Your task to perform on an android device: check battery use Image 0: 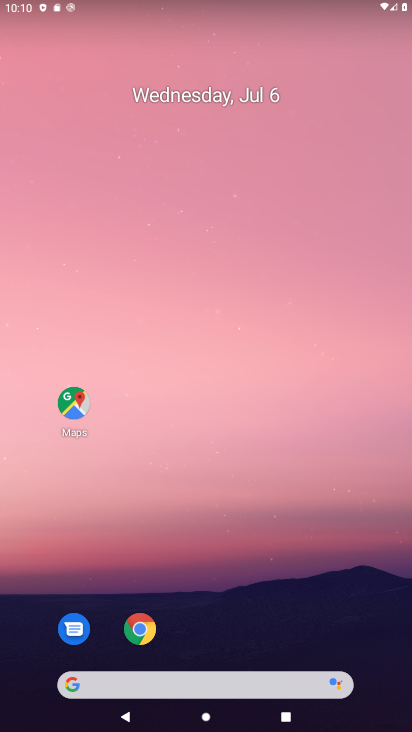
Step 0: drag from (310, 614) to (201, 186)
Your task to perform on an android device: check battery use Image 1: 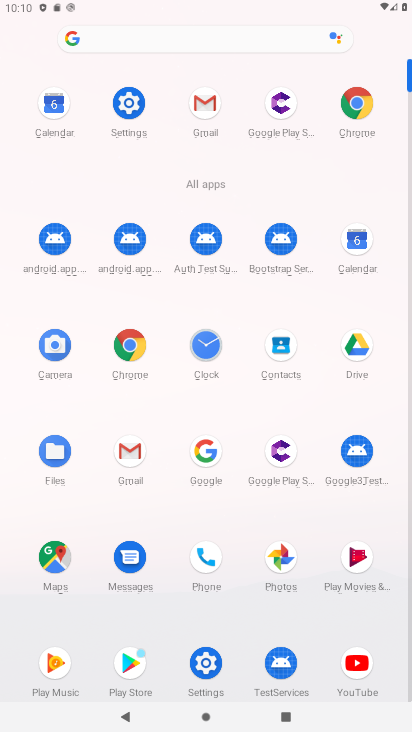
Step 1: click (130, 115)
Your task to perform on an android device: check battery use Image 2: 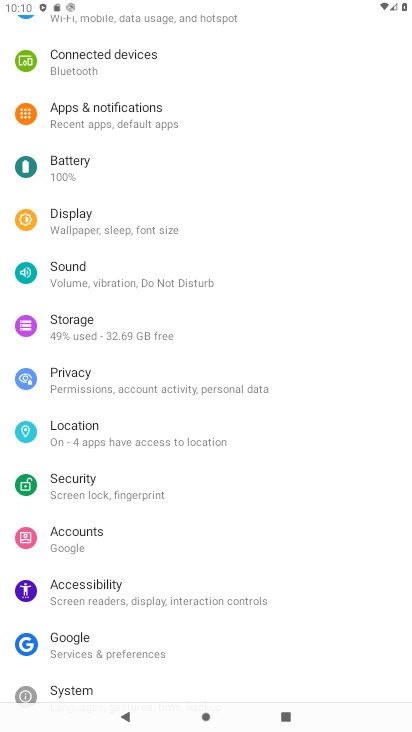
Step 2: click (134, 172)
Your task to perform on an android device: check battery use Image 3: 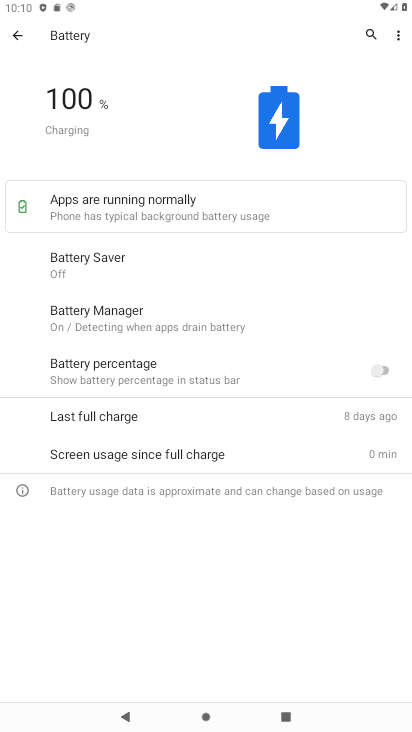
Step 3: click (393, 34)
Your task to perform on an android device: check battery use Image 4: 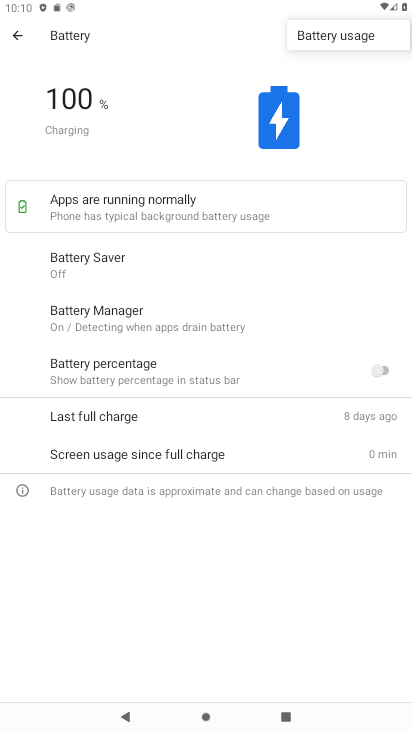
Step 4: click (370, 35)
Your task to perform on an android device: check battery use Image 5: 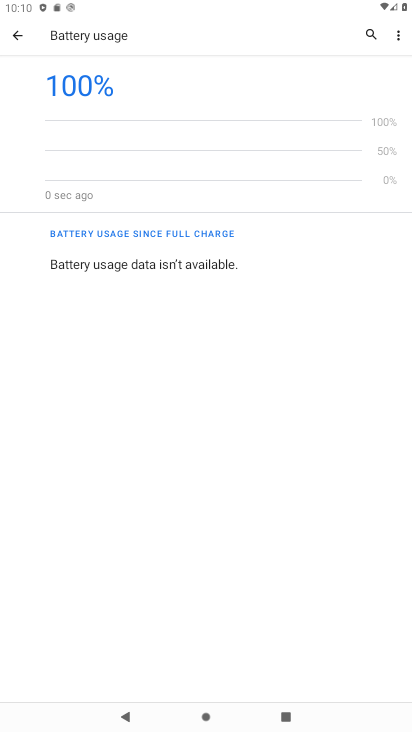
Step 5: task complete